Your task to perform on an android device: toggle data saver in the chrome app Image 0: 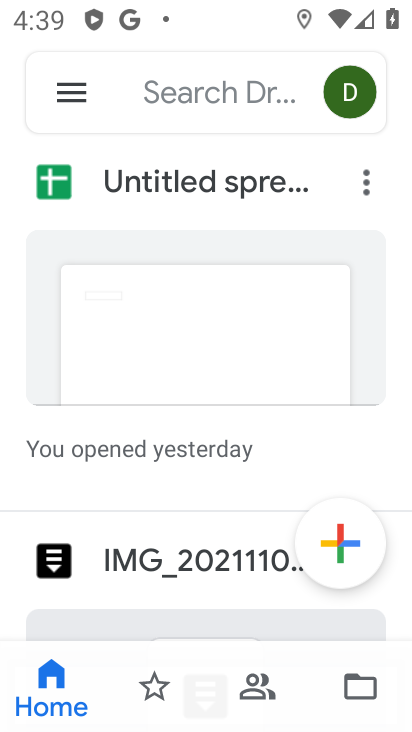
Step 0: press home button
Your task to perform on an android device: toggle data saver in the chrome app Image 1: 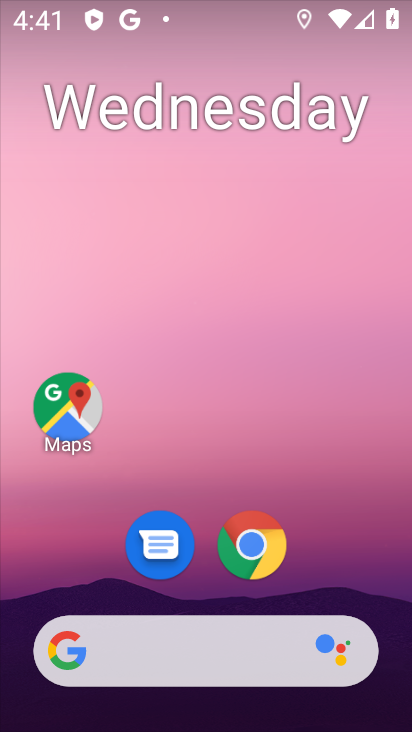
Step 1: click (259, 538)
Your task to perform on an android device: toggle data saver in the chrome app Image 2: 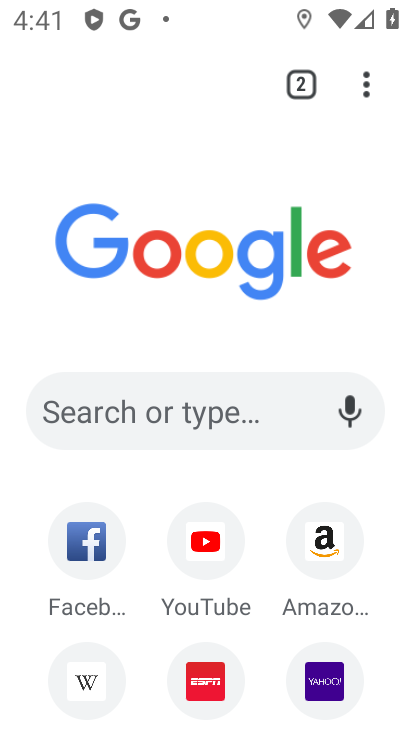
Step 2: click (366, 79)
Your task to perform on an android device: toggle data saver in the chrome app Image 3: 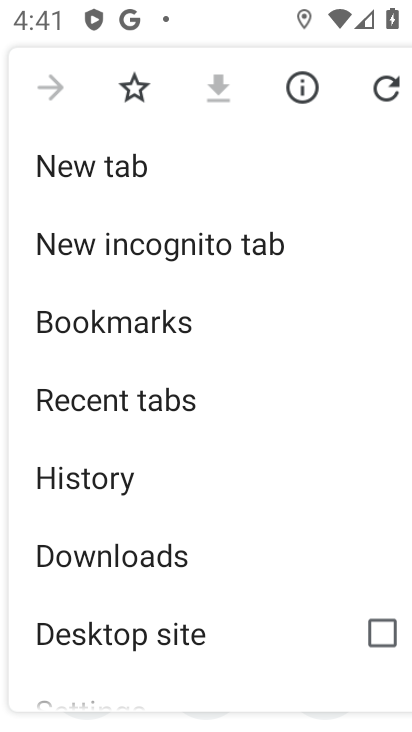
Step 3: drag from (146, 589) to (81, 73)
Your task to perform on an android device: toggle data saver in the chrome app Image 4: 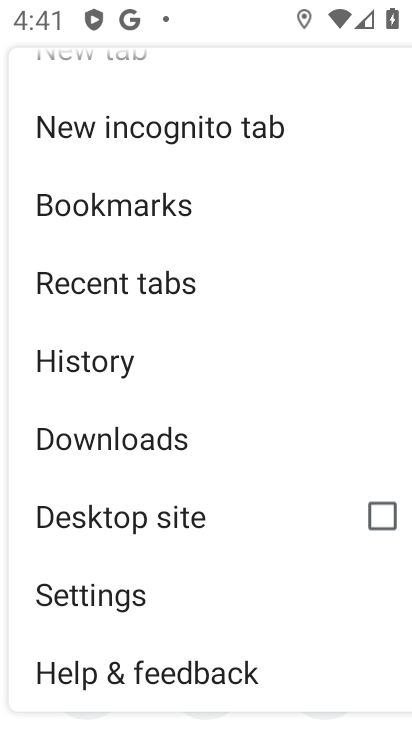
Step 4: click (96, 582)
Your task to perform on an android device: toggle data saver in the chrome app Image 5: 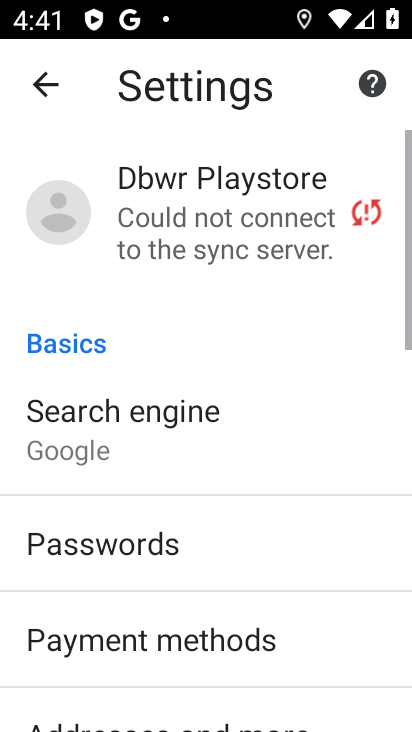
Step 5: drag from (127, 604) to (70, 70)
Your task to perform on an android device: toggle data saver in the chrome app Image 6: 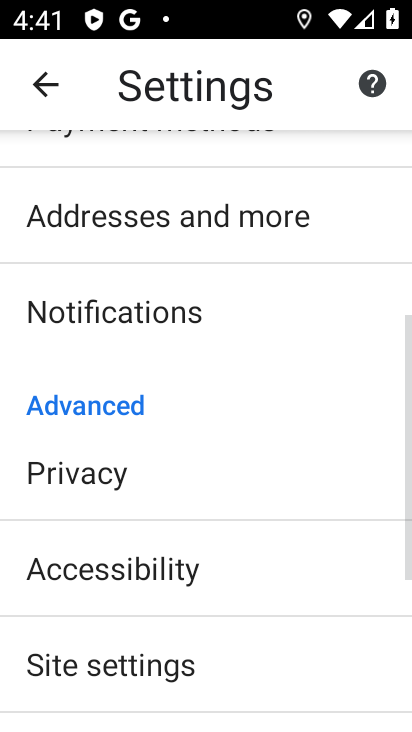
Step 6: drag from (153, 652) to (89, 165)
Your task to perform on an android device: toggle data saver in the chrome app Image 7: 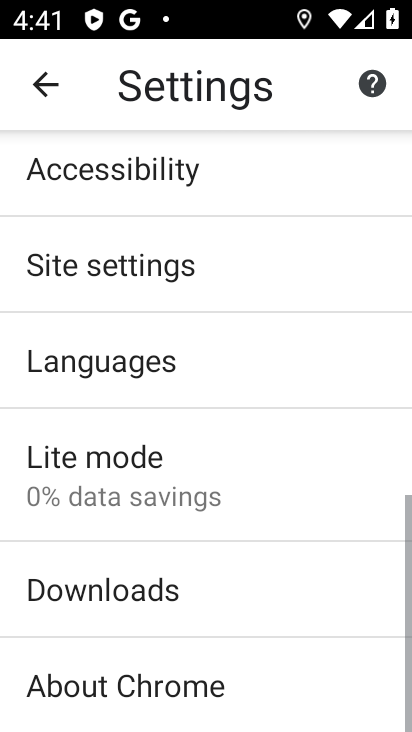
Step 7: click (129, 496)
Your task to perform on an android device: toggle data saver in the chrome app Image 8: 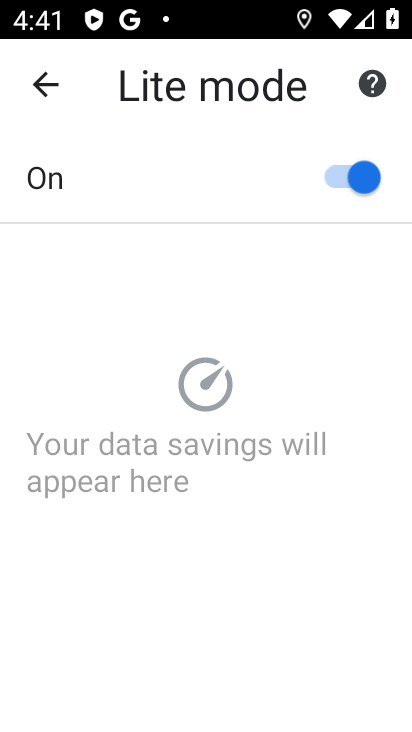
Step 8: click (358, 183)
Your task to perform on an android device: toggle data saver in the chrome app Image 9: 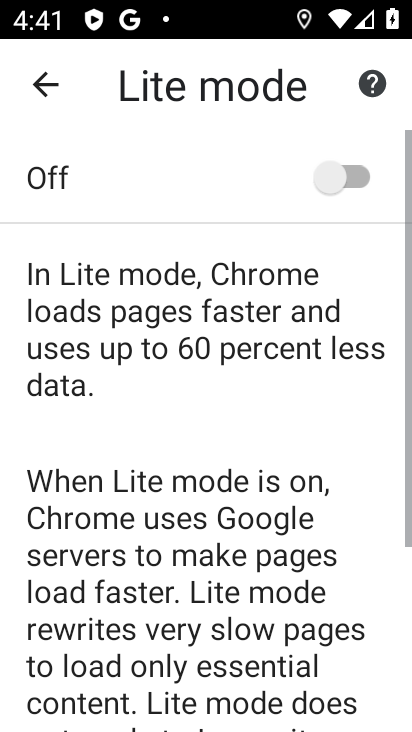
Step 9: task complete